Your task to perform on an android device: Search for the best books of all time on Goodreads Image 0: 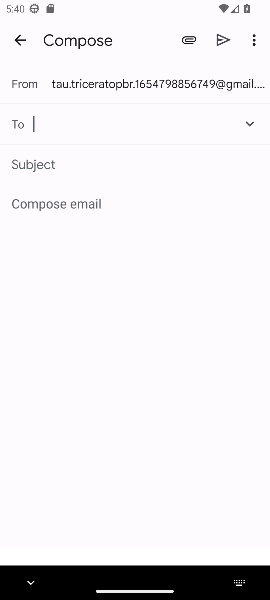
Step 0: press home button
Your task to perform on an android device: Search for the best books of all time on Goodreads Image 1: 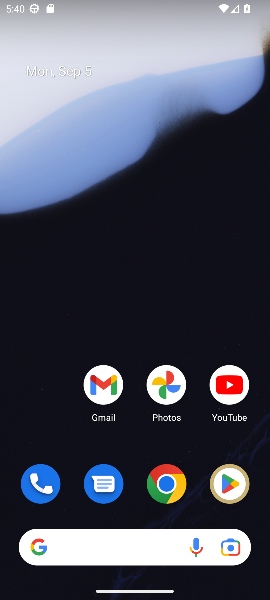
Step 1: click (167, 486)
Your task to perform on an android device: Search for the best books of all time on Goodreads Image 2: 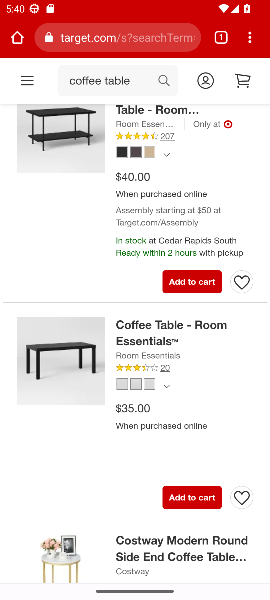
Step 2: click (154, 34)
Your task to perform on an android device: Search for the best books of all time on Goodreads Image 3: 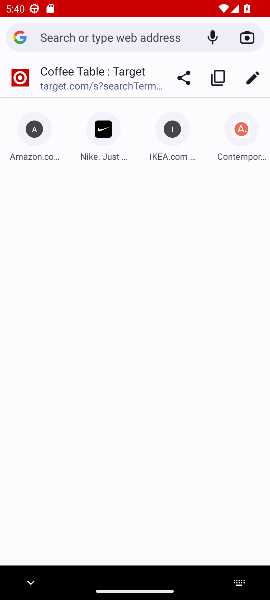
Step 3: type "Goodreads"
Your task to perform on an android device: Search for the best books of all time on Goodreads Image 4: 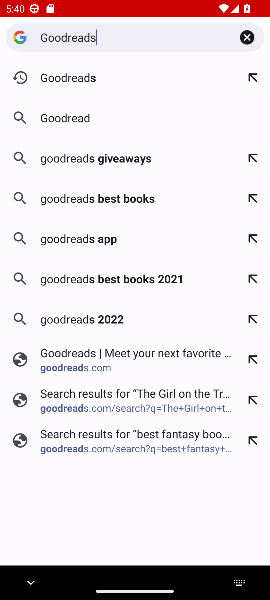
Step 4: press enter
Your task to perform on an android device: Search for the best books of all time on Goodreads Image 5: 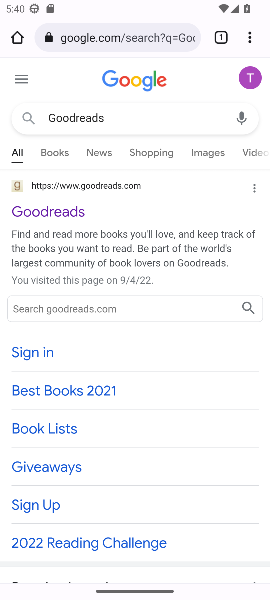
Step 5: click (59, 213)
Your task to perform on an android device: Search for the best books of all time on Goodreads Image 6: 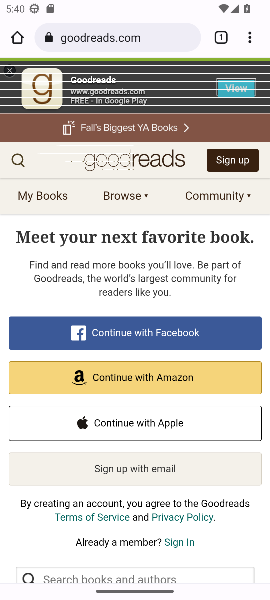
Step 6: click (16, 160)
Your task to perform on an android device: Search for the best books of all time on Goodreads Image 7: 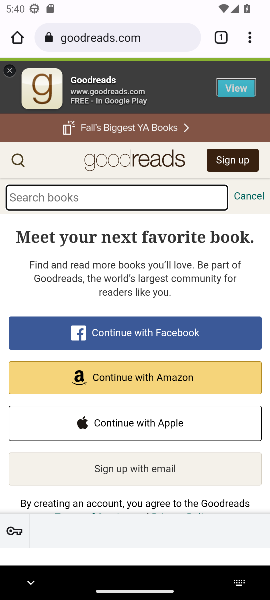
Step 7: click (34, 193)
Your task to perform on an android device: Search for the best books of all time on Goodreads Image 8: 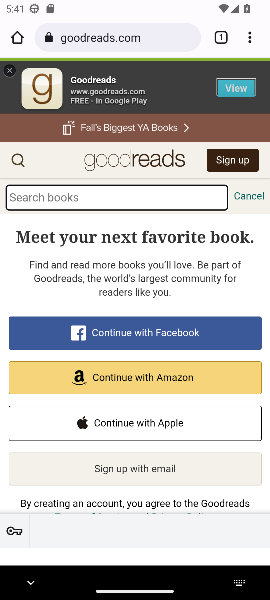
Step 8: type " best books of all time"
Your task to perform on an android device: Search for the best books of all time on Goodreads Image 9: 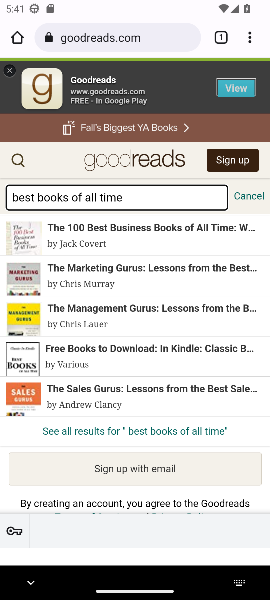
Step 9: task complete